Your task to perform on an android device: turn vacation reply on in the gmail app Image 0: 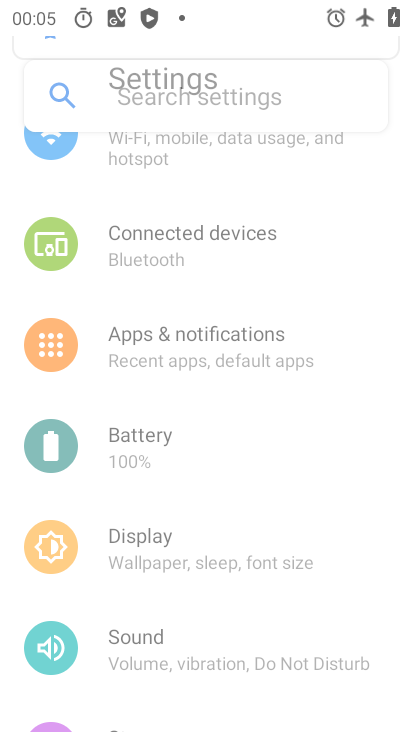
Step 0: drag from (337, 582) to (335, 92)
Your task to perform on an android device: turn vacation reply on in the gmail app Image 1: 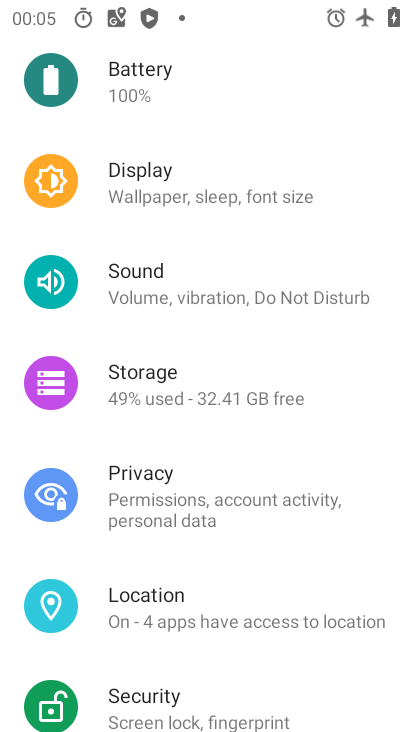
Step 1: drag from (282, 151) to (302, 643)
Your task to perform on an android device: turn vacation reply on in the gmail app Image 2: 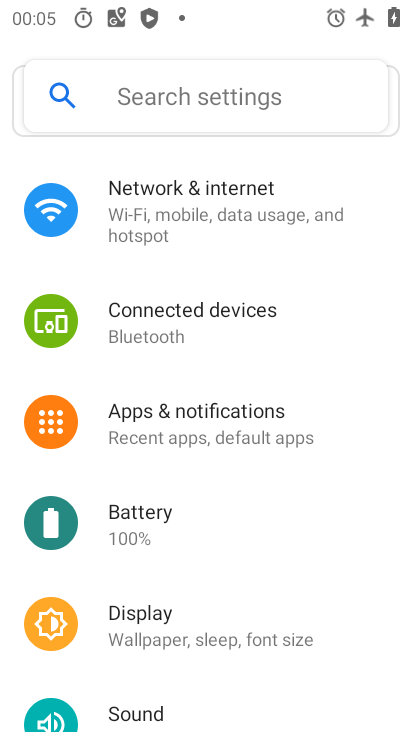
Step 2: click (222, 217)
Your task to perform on an android device: turn vacation reply on in the gmail app Image 3: 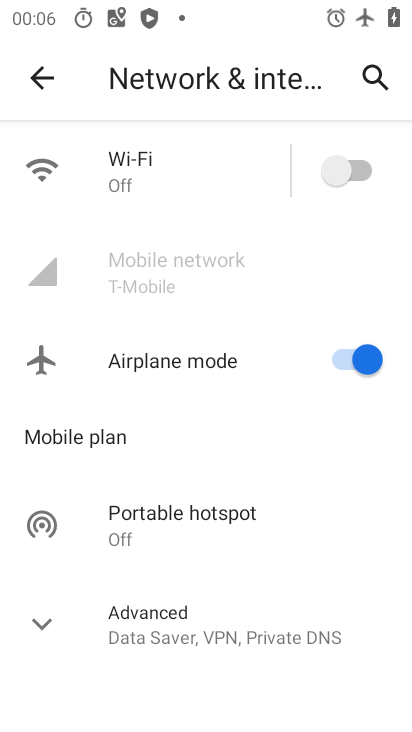
Step 3: press home button
Your task to perform on an android device: turn vacation reply on in the gmail app Image 4: 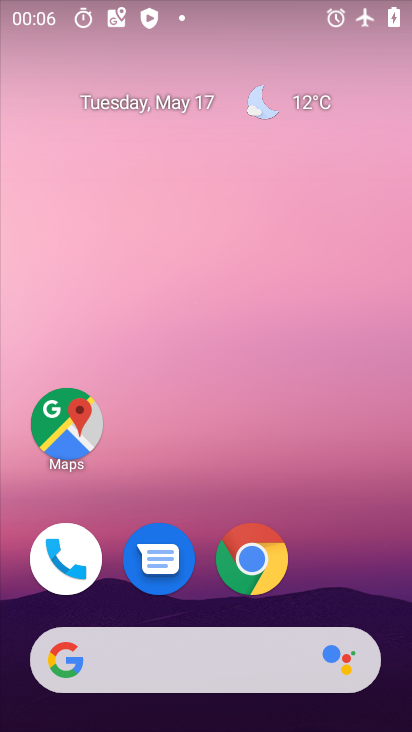
Step 4: drag from (343, 515) to (342, 75)
Your task to perform on an android device: turn vacation reply on in the gmail app Image 5: 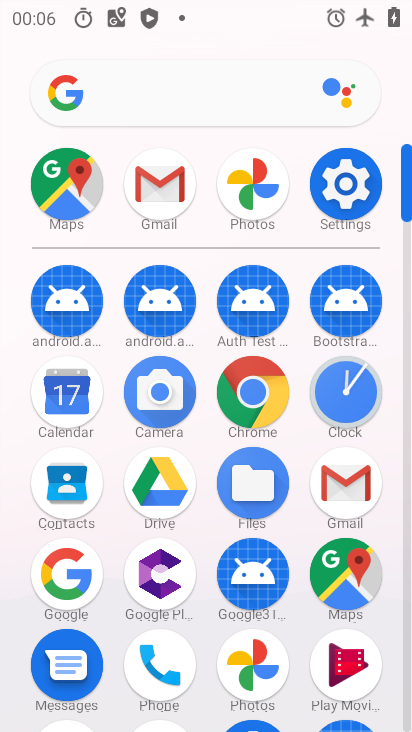
Step 5: click (163, 176)
Your task to perform on an android device: turn vacation reply on in the gmail app Image 6: 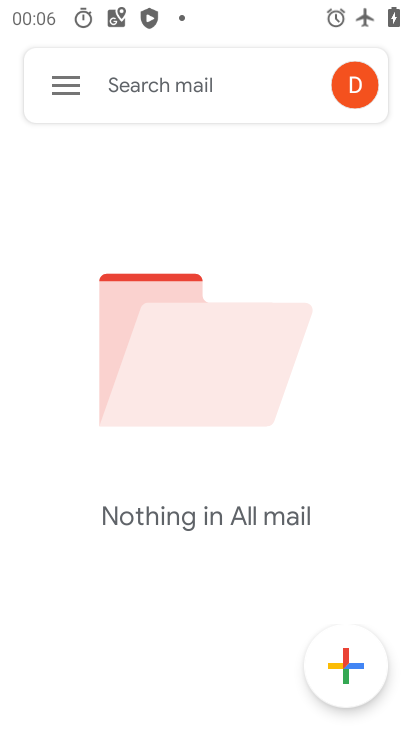
Step 6: click (63, 80)
Your task to perform on an android device: turn vacation reply on in the gmail app Image 7: 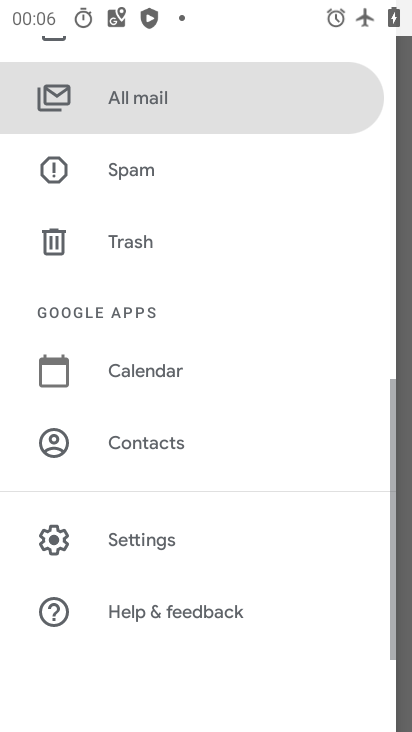
Step 7: click (136, 559)
Your task to perform on an android device: turn vacation reply on in the gmail app Image 8: 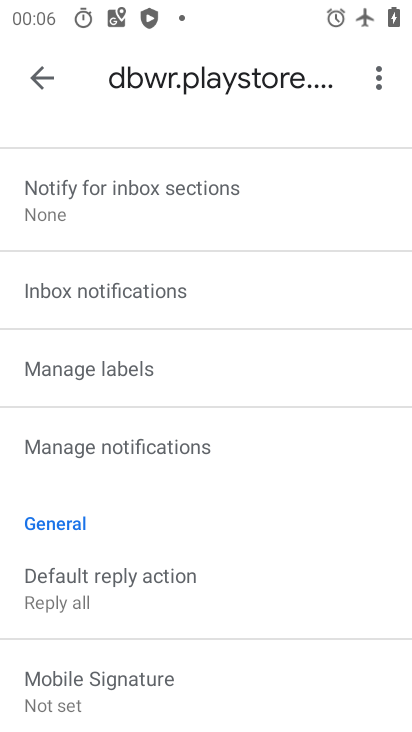
Step 8: drag from (252, 631) to (302, 202)
Your task to perform on an android device: turn vacation reply on in the gmail app Image 9: 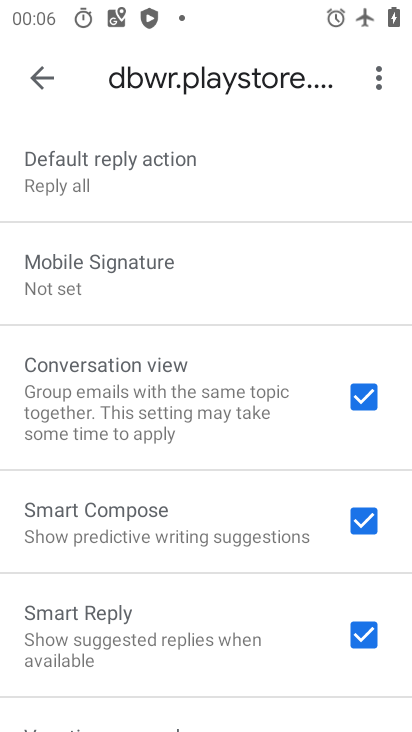
Step 9: drag from (208, 570) to (262, 213)
Your task to perform on an android device: turn vacation reply on in the gmail app Image 10: 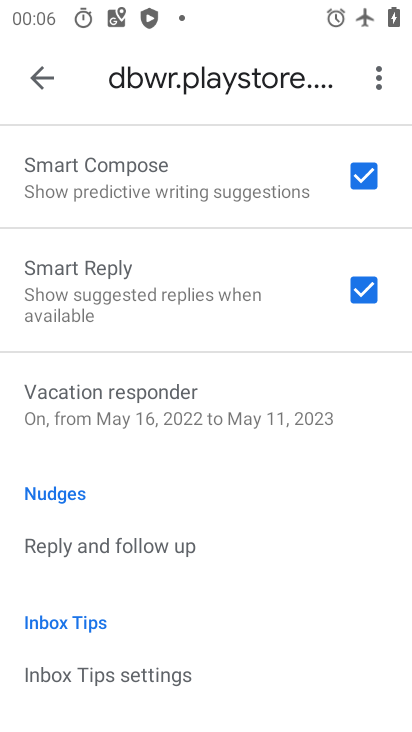
Step 10: click (187, 392)
Your task to perform on an android device: turn vacation reply on in the gmail app Image 11: 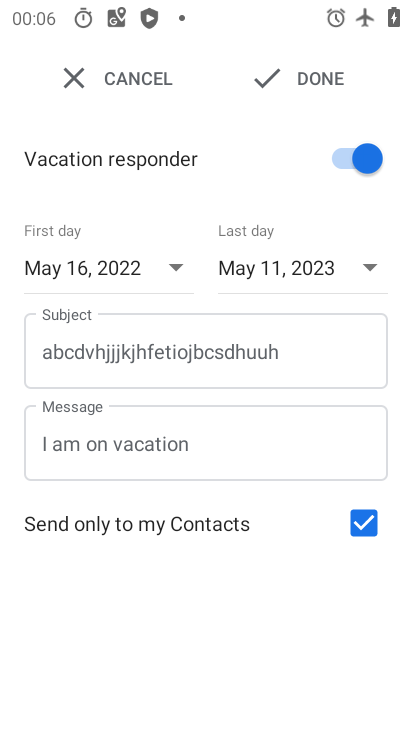
Step 11: task complete